Your task to perform on an android device: Open Chrome and go to the settings page Image 0: 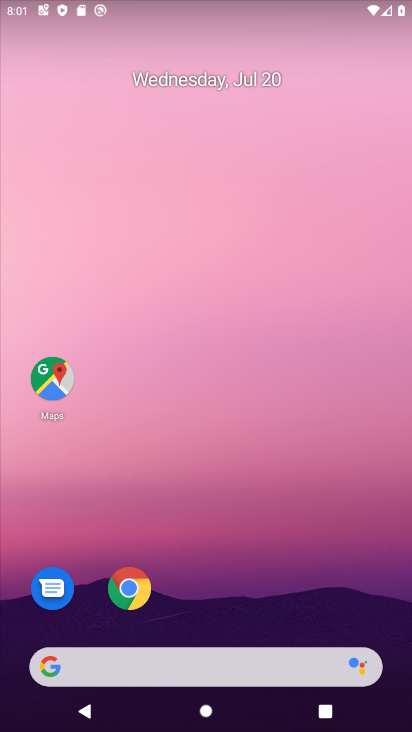
Step 0: click (130, 586)
Your task to perform on an android device: Open Chrome and go to the settings page Image 1: 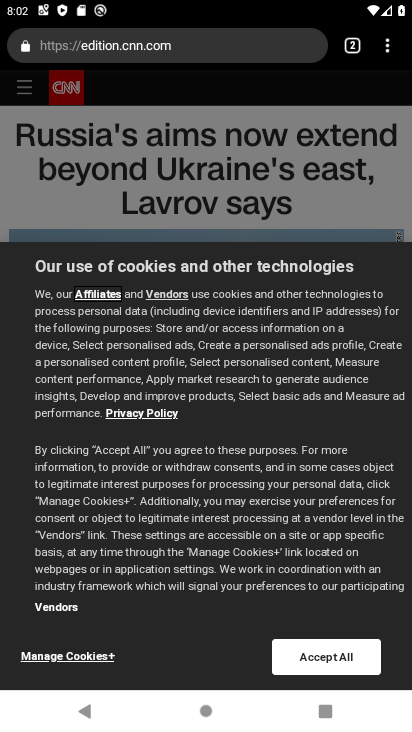
Step 1: click (389, 45)
Your task to perform on an android device: Open Chrome and go to the settings page Image 2: 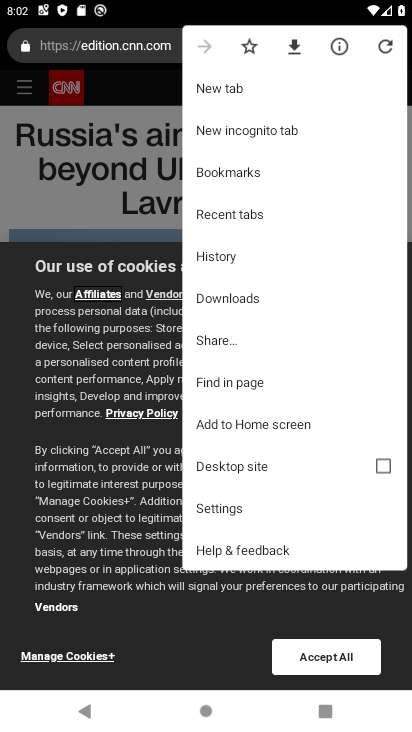
Step 2: click (233, 509)
Your task to perform on an android device: Open Chrome and go to the settings page Image 3: 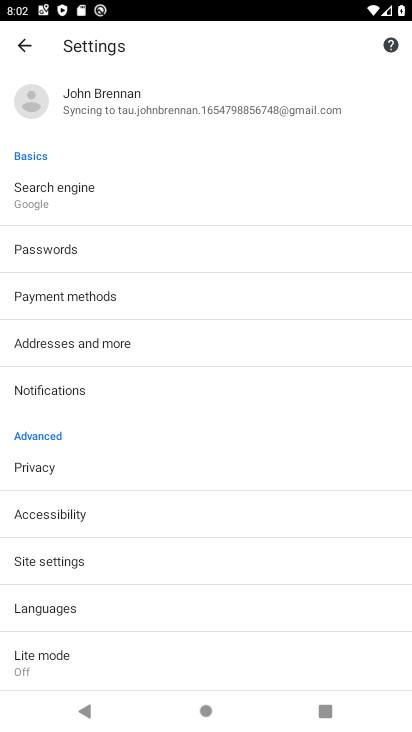
Step 3: task complete